Your task to perform on an android device: turn on data saver in the chrome app Image 0: 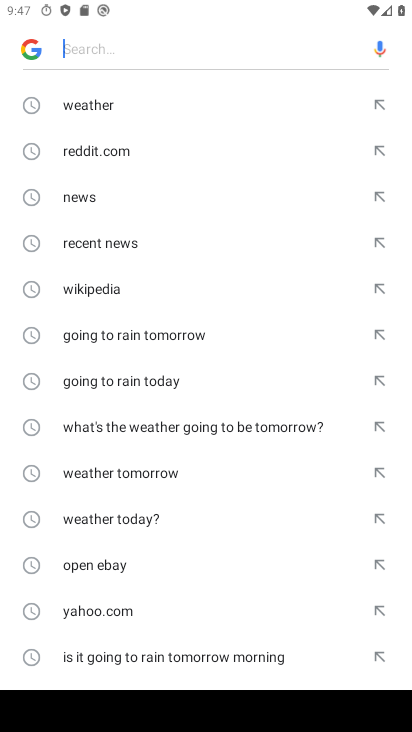
Step 0: press back button
Your task to perform on an android device: turn on data saver in the chrome app Image 1: 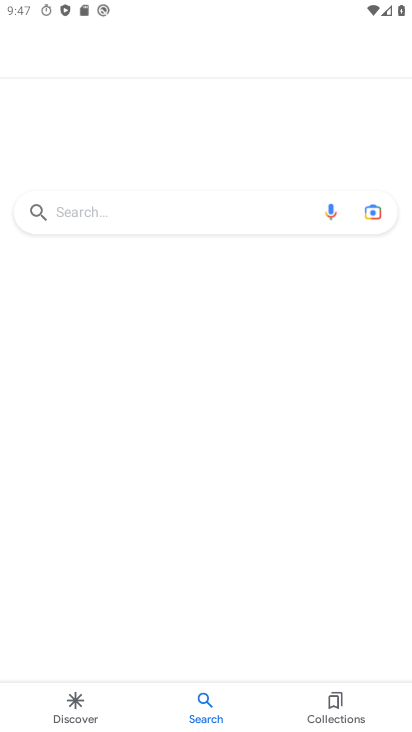
Step 1: press back button
Your task to perform on an android device: turn on data saver in the chrome app Image 2: 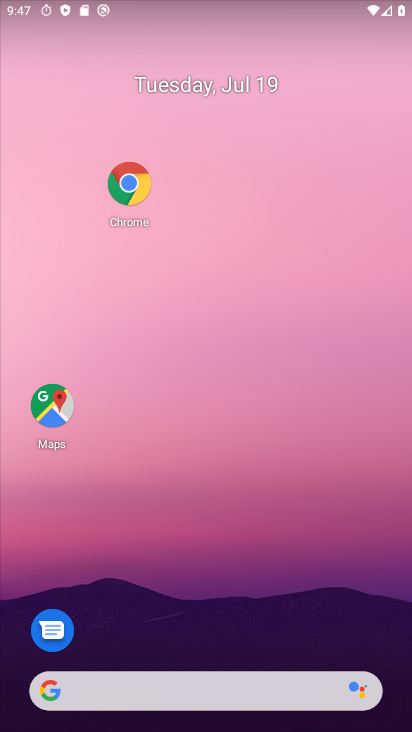
Step 2: drag from (194, 652) to (331, 41)
Your task to perform on an android device: turn on data saver in the chrome app Image 3: 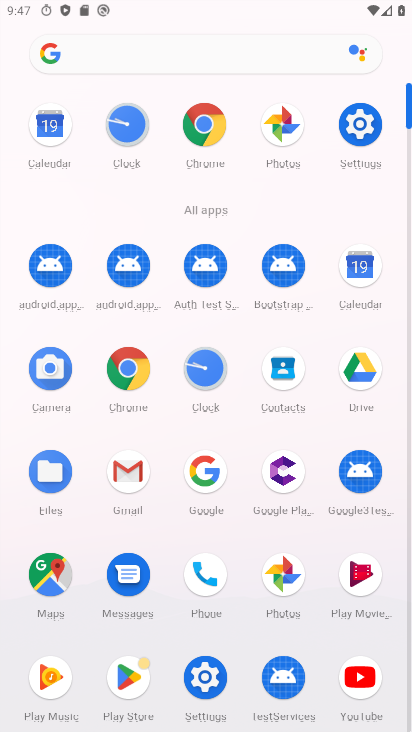
Step 3: click (136, 381)
Your task to perform on an android device: turn on data saver in the chrome app Image 4: 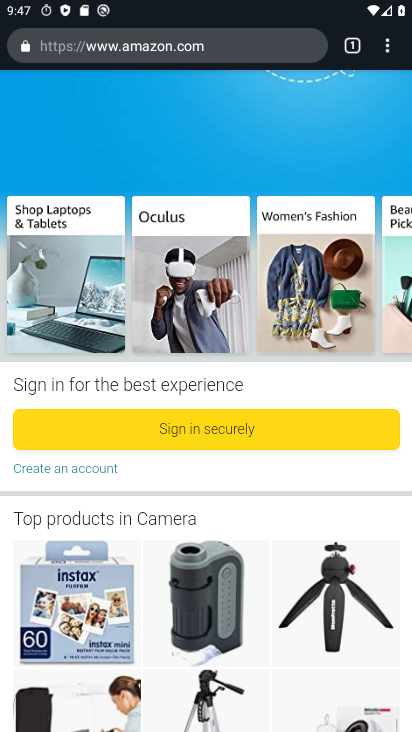
Step 4: click (390, 52)
Your task to perform on an android device: turn on data saver in the chrome app Image 5: 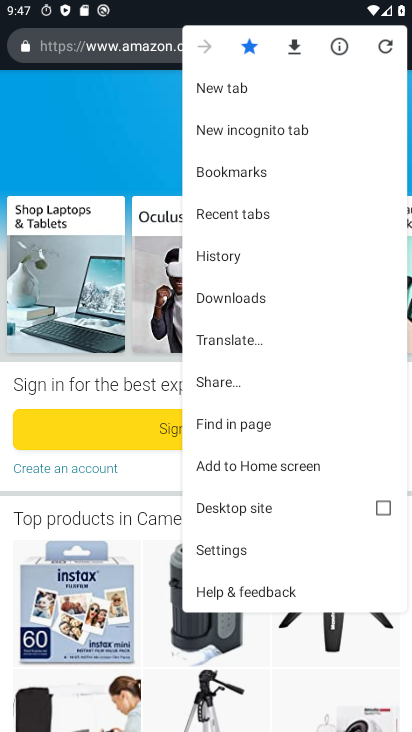
Step 5: click (238, 548)
Your task to perform on an android device: turn on data saver in the chrome app Image 6: 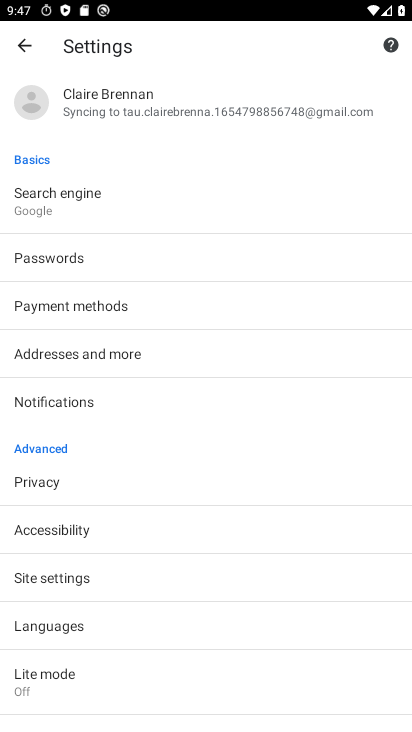
Step 6: click (40, 671)
Your task to perform on an android device: turn on data saver in the chrome app Image 7: 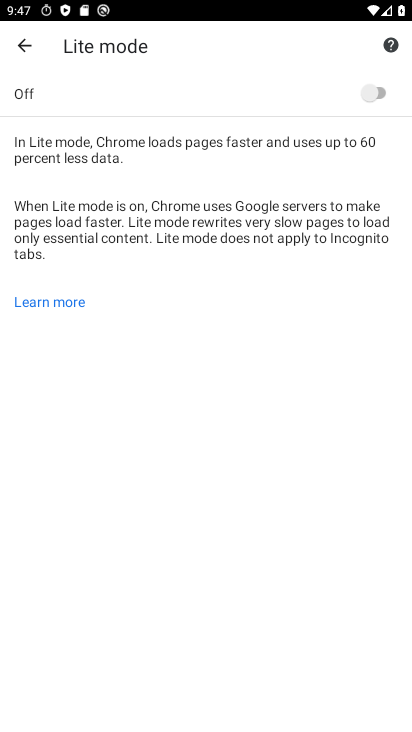
Step 7: click (377, 97)
Your task to perform on an android device: turn on data saver in the chrome app Image 8: 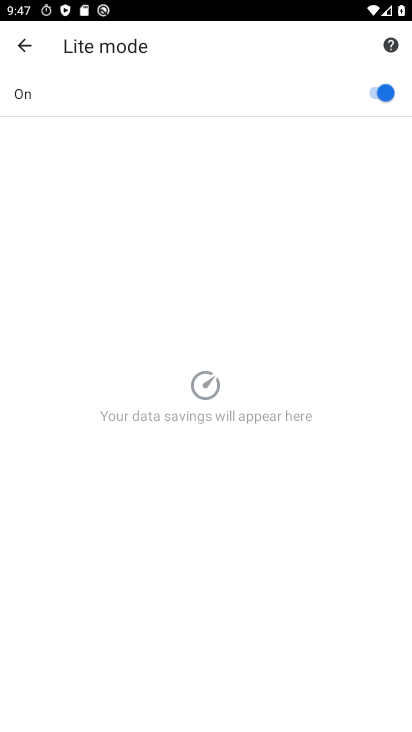
Step 8: task complete